Your task to perform on an android device: change notification settings in the gmail app Image 0: 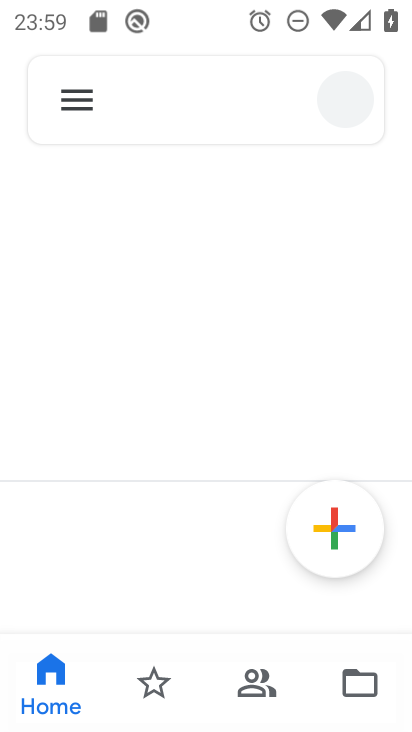
Step 0: drag from (337, 522) to (258, 203)
Your task to perform on an android device: change notification settings in the gmail app Image 1: 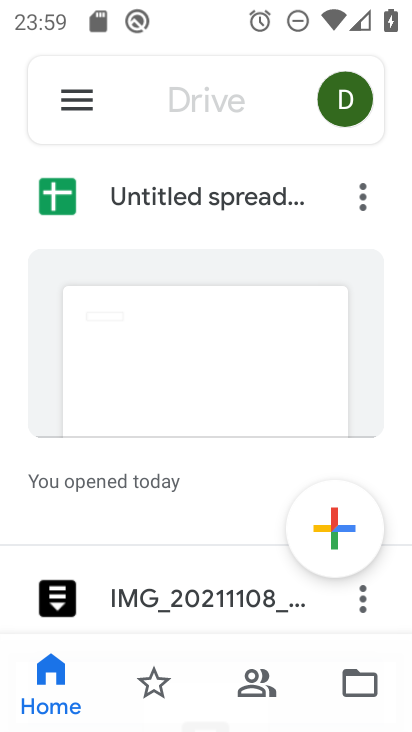
Step 1: press home button
Your task to perform on an android device: change notification settings in the gmail app Image 2: 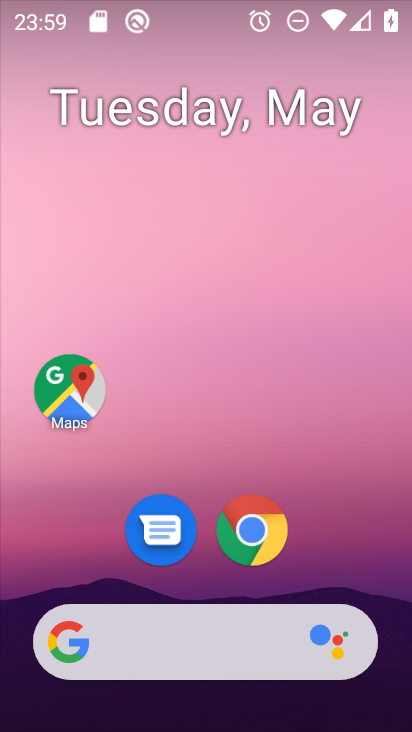
Step 2: drag from (322, 537) to (269, 149)
Your task to perform on an android device: change notification settings in the gmail app Image 3: 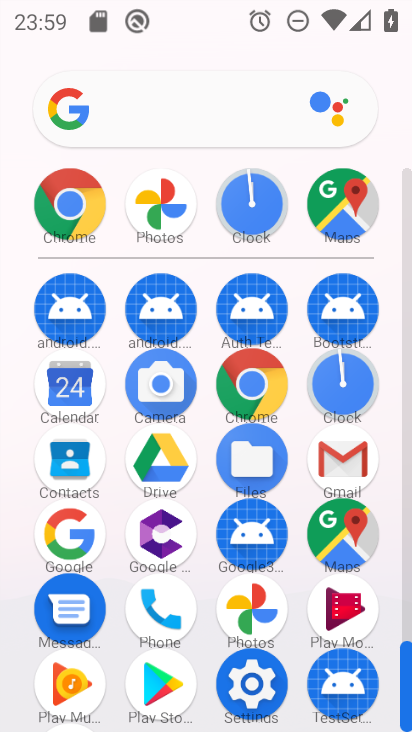
Step 3: click (341, 468)
Your task to perform on an android device: change notification settings in the gmail app Image 4: 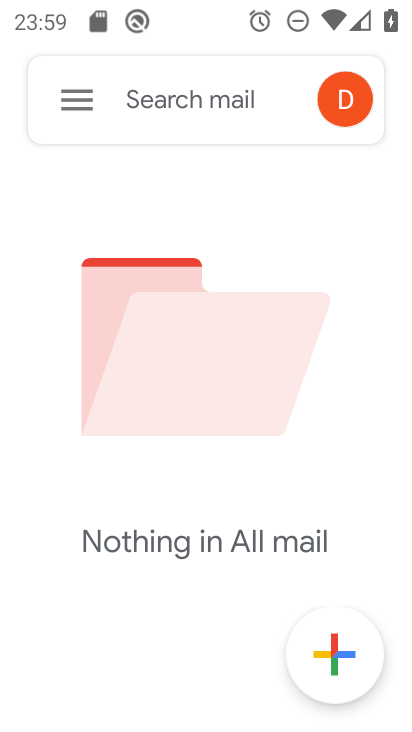
Step 4: click (67, 104)
Your task to perform on an android device: change notification settings in the gmail app Image 5: 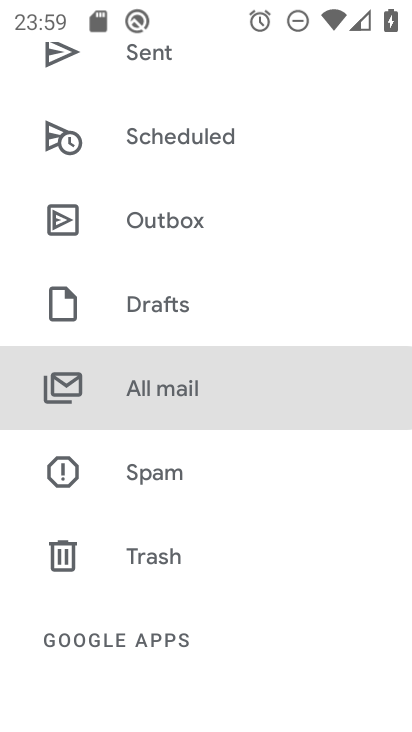
Step 5: drag from (195, 568) to (338, 150)
Your task to perform on an android device: change notification settings in the gmail app Image 6: 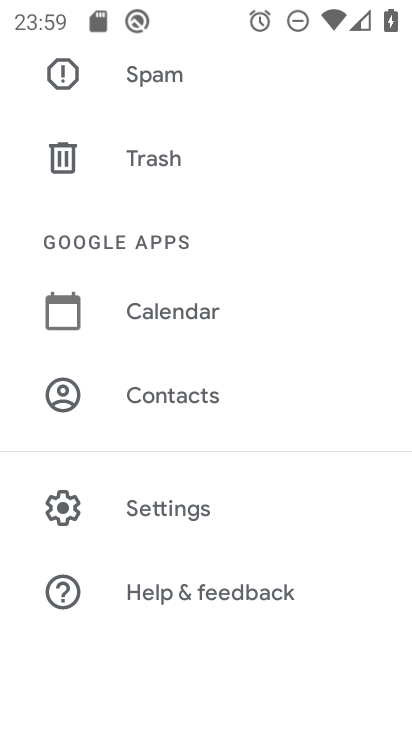
Step 6: click (205, 501)
Your task to perform on an android device: change notification settings in the gmail app Image 7: 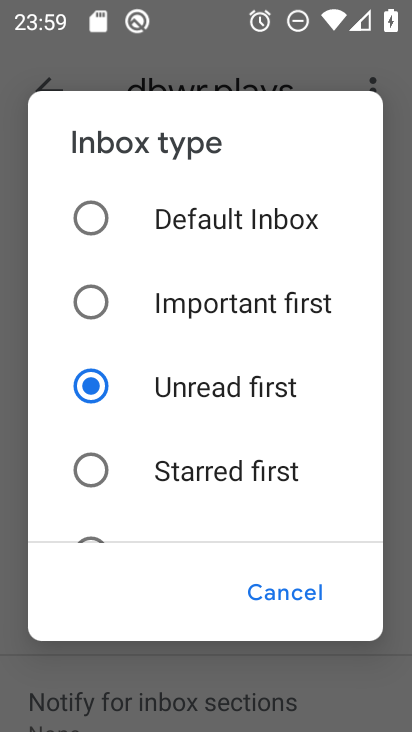
Step 7: click (287, 583)
Your task to perform on an android device: change notification settings in the gmail app Image 8: 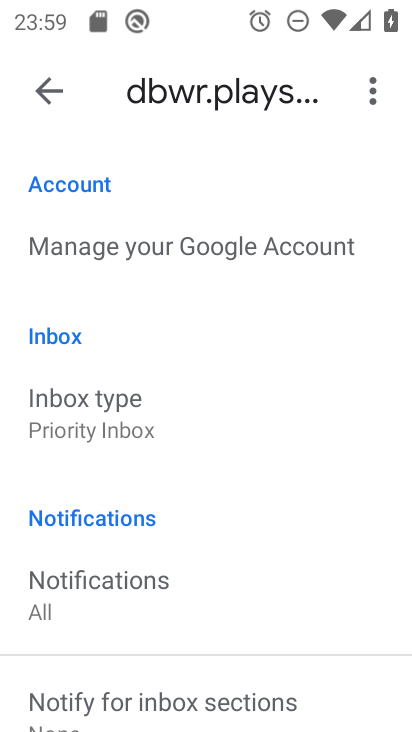
Step 8: drag from (240, 562) to (325, 240)
Your task to perform on an android device: change notification settings in the gmail app Image 9: 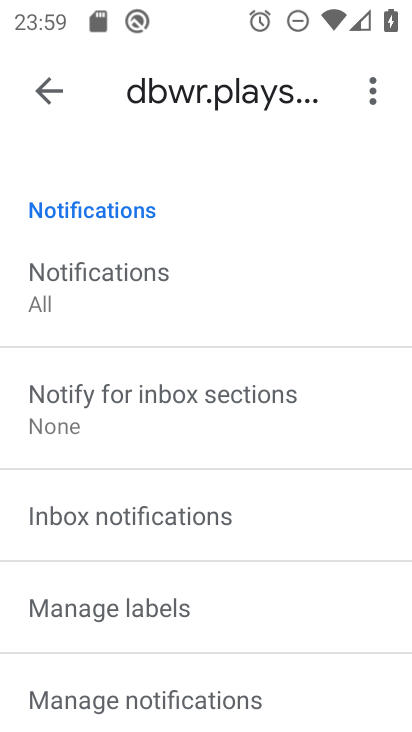
Step 9: click (167, 696)
Your task to perform on an android device: change notification settings in the gmail app Image 10: 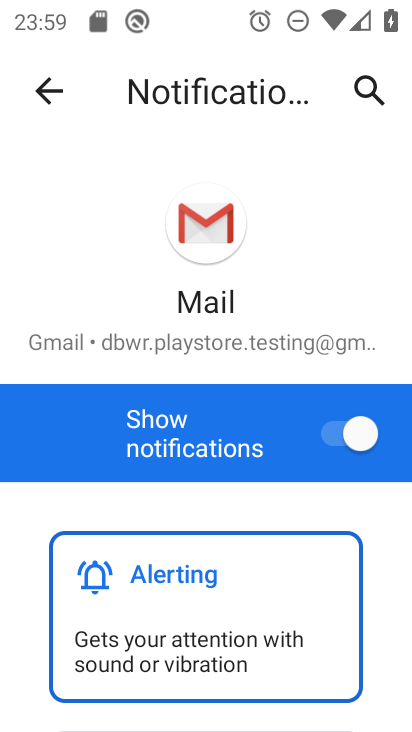
Step 10: click (359, 452)
Your task to perform on an android device: change notification settings in the gmail app Image 11: 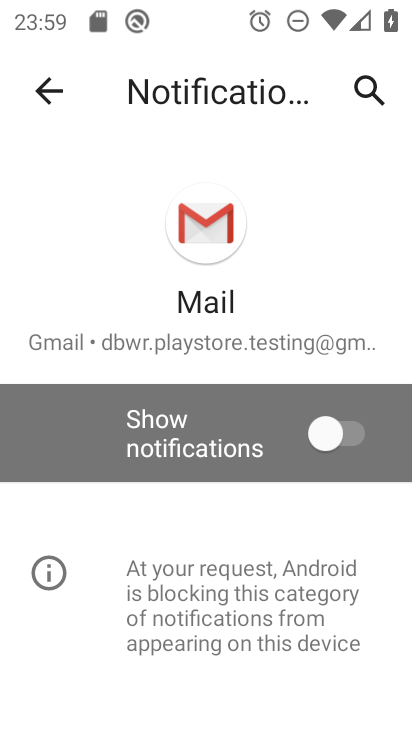
Step 11: task complete